Your task to perform on an android device: Open privacy settings Image 0: 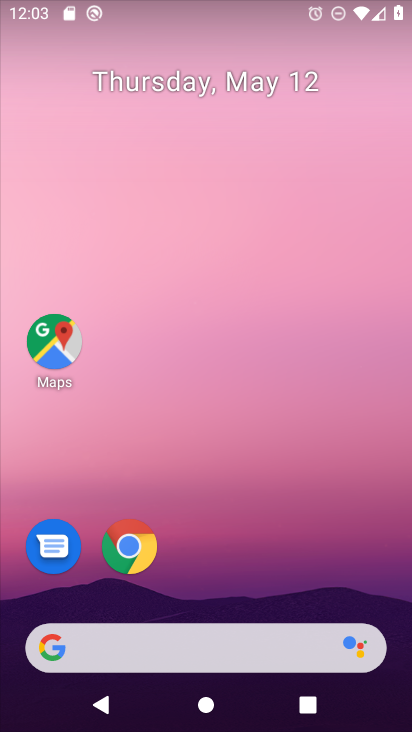
Step 0: drag from (402, 622) to (270, 77)
Your task to perform on an android device: Open privacy settings Image 1: 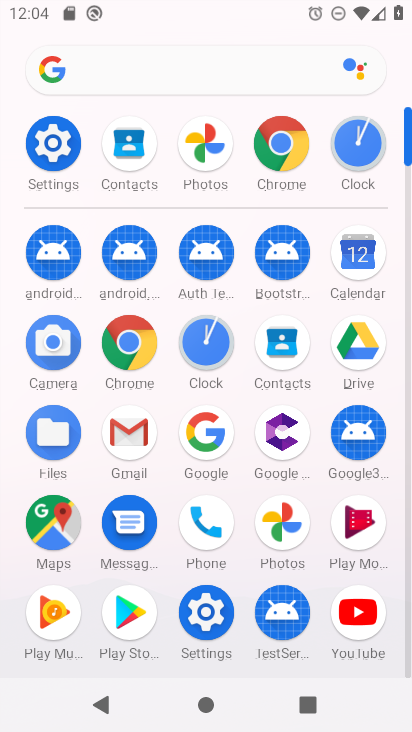
Step 1: click (196, 631)
Your task to perform on an android device: Open privacy settings Image 2: 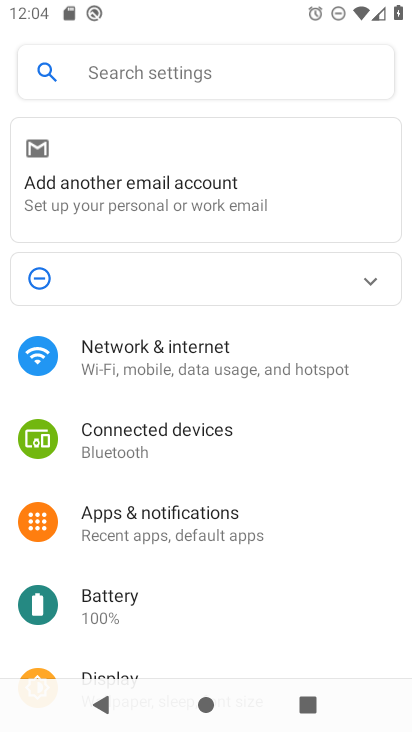
Step 2: drag from (173, 600) to (240, 71)
Your task to perform on an android device: Open privacy settings Image 3: 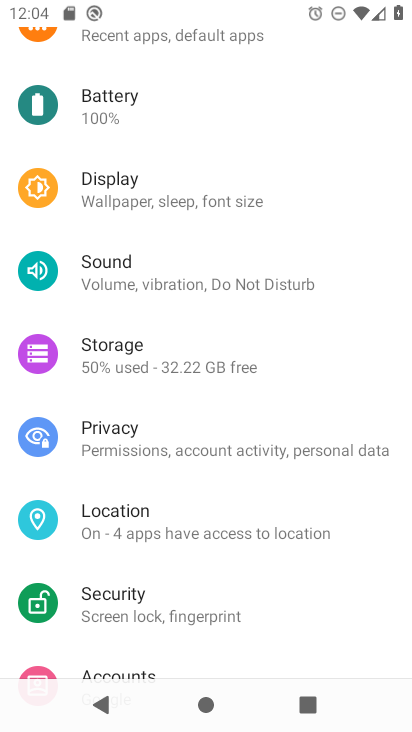
Step 3: click (107, 449)
Your task to perform on an android device: Open privacy settings Image 4: 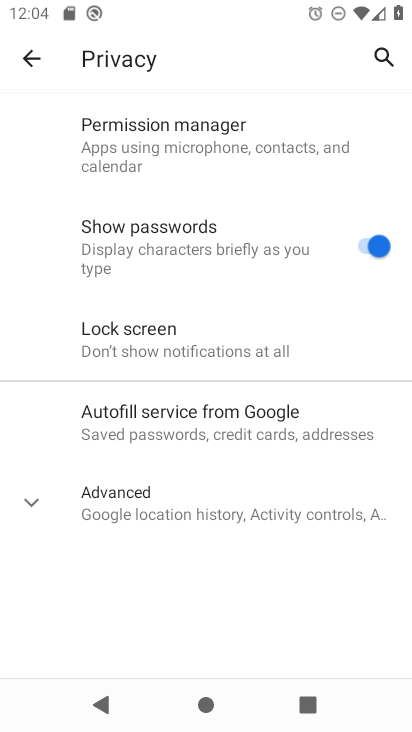
Step 4: task complete